Your task to perform on an android device: see sites visited before in the chrome app Image 0: 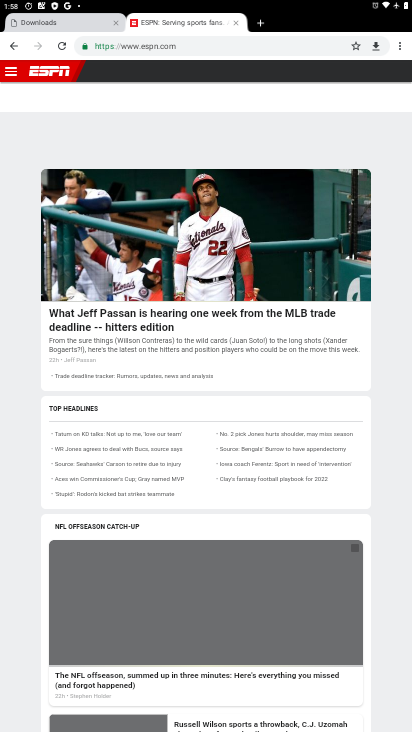
Step 0: drag from (399, 46) to (330, 140)
Your task to perform on an android device: see sites visited before in the chrome app Image 1: 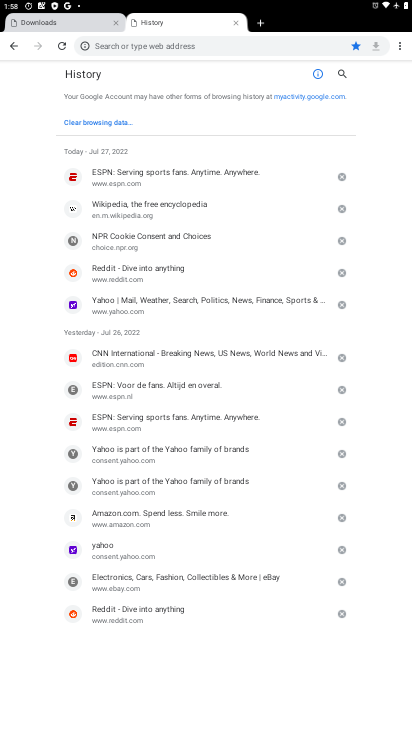
Step 1: task complete